Your task to perform on an android device: Open battery settings Image 0: 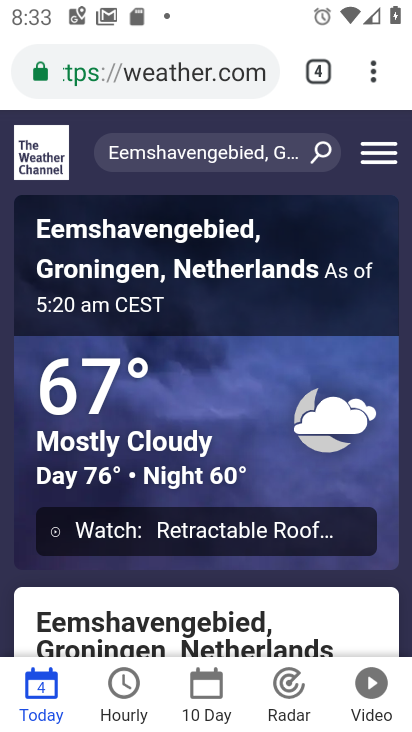
Step 0: press home button
Your task to perform on an android device: Open battery settings Image 1: 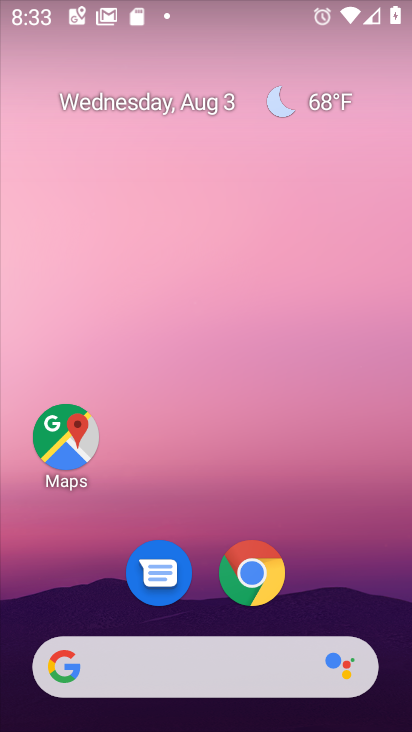
Step 1: drag from (322, 559) to (301, 16)
Your task to perform on an android device: Open battery settings Image 2: 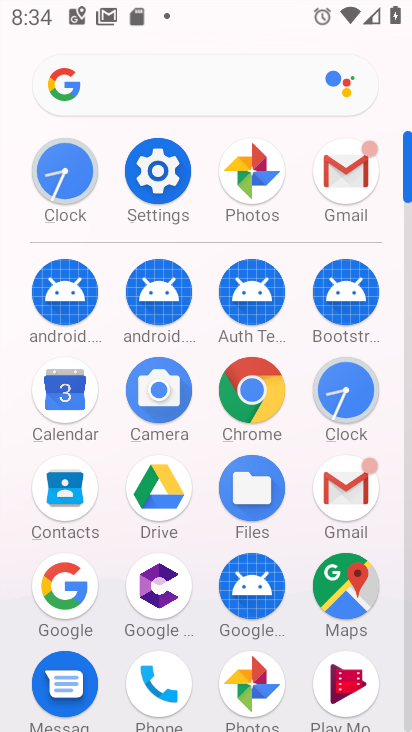
Step 2: click (161, 178)
Your task to perform on an android device: Open battery settings Image 3: 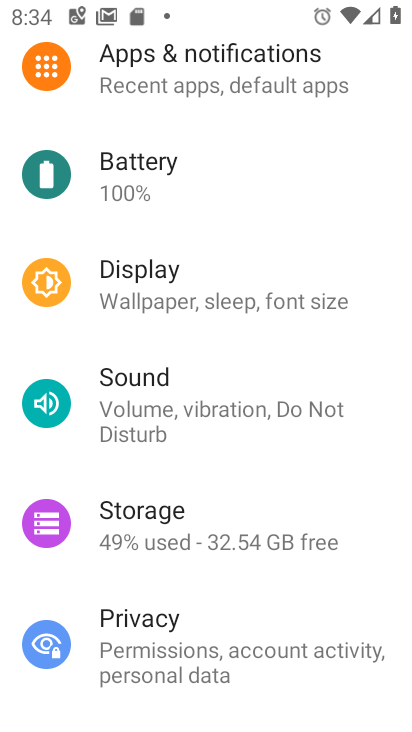
Step 3: click (161, 178)
Your task to perform on an android device: Open battery settings Image 4: 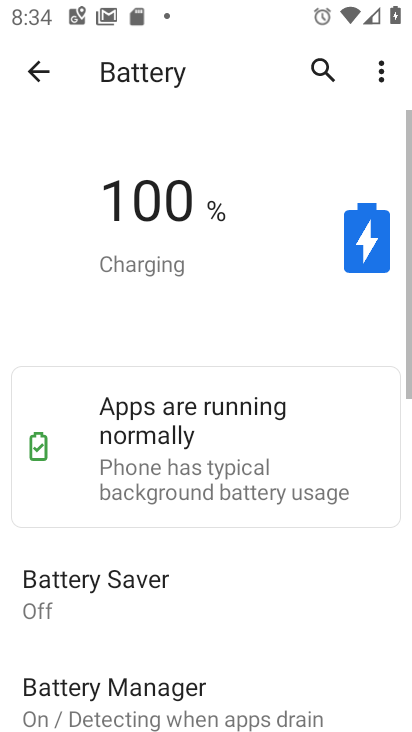
Step 4: task complete